Your task to perform on an android device: Clear the cart on bestbuy. Search for lg ultragear on bestbuy, select the first entry, and add it to the cart. Image 0: 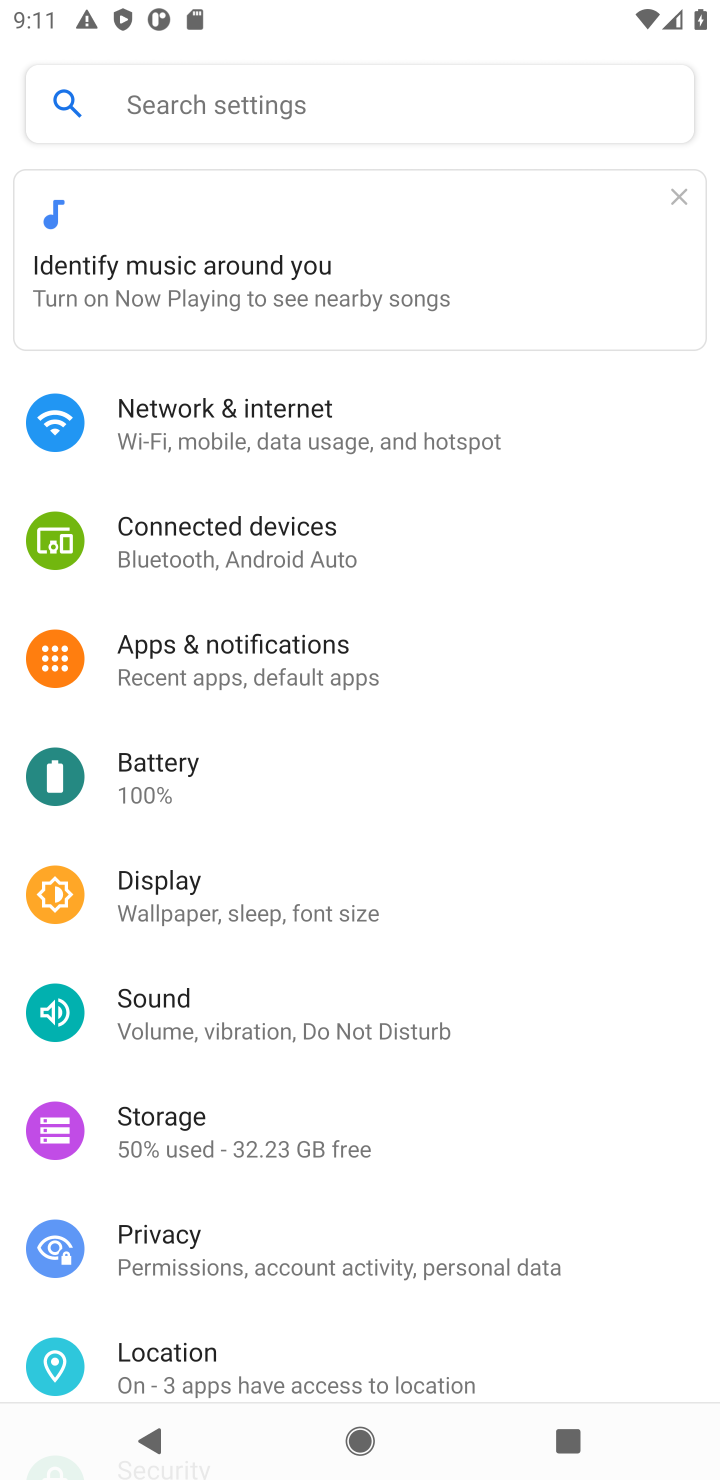
Step 0: press home button
Your task to perform on an android device: Clear the cart on bestbuy. Search for lg ultragear on bestbuy, select the first entry, and add it to the cart. Image 1: 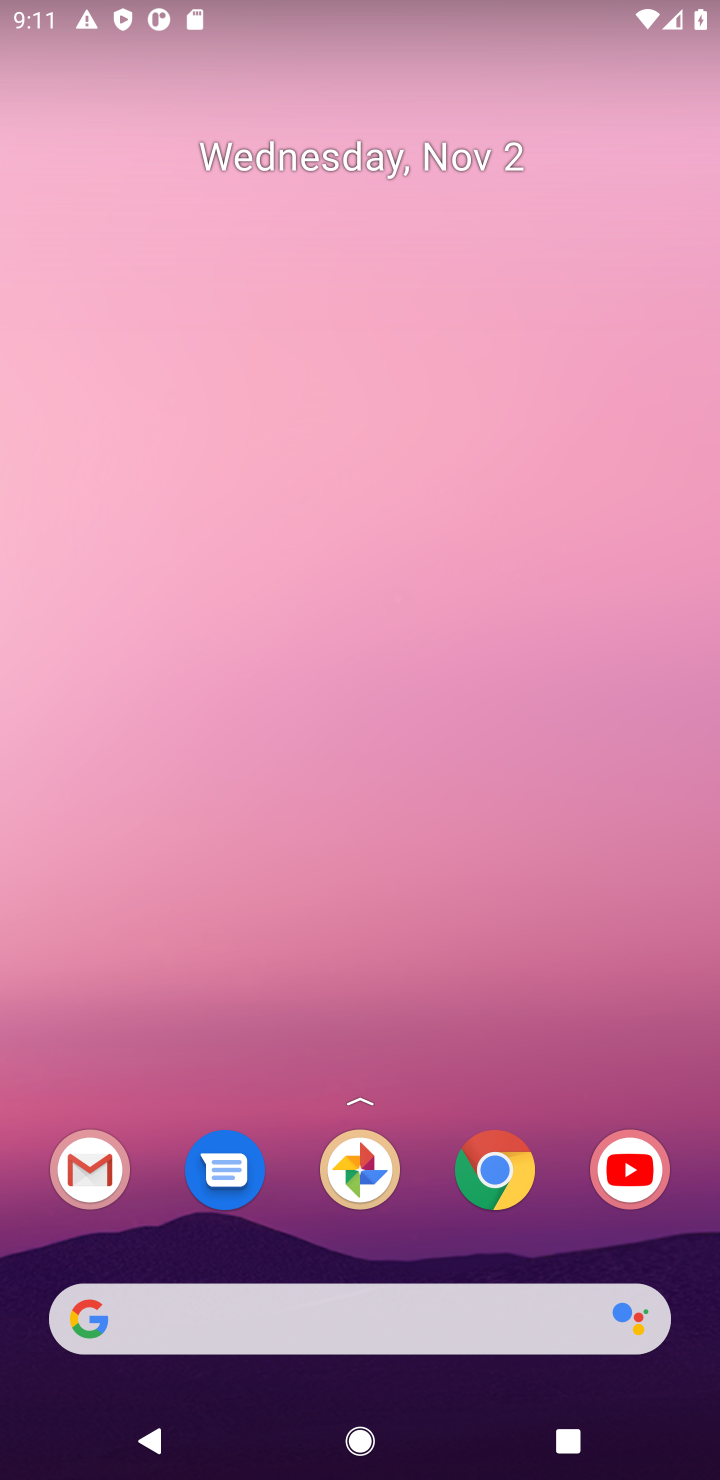
Step 1: click (518, 1163)
Your task to perform on an android device: Clear the cart on bestbuy. Search for lg ultragear on bestbuy, select the first entry, and add it to the cart. Image 2: 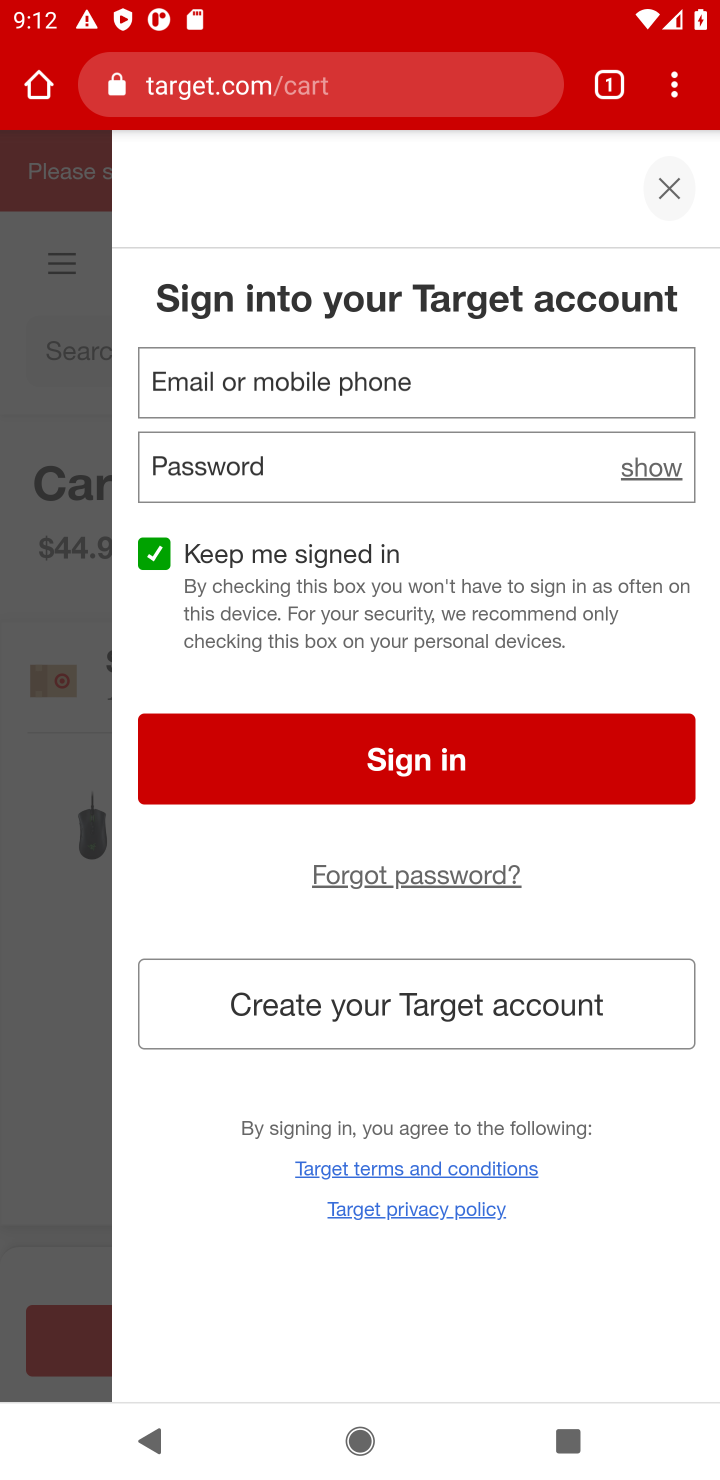
Step 2: click (295, 81)
Your task to perform on an android device: Clear the cart on bestbuy. Search for lg ultragear on bestbuy, select the first entry, and add it to the cart. Image 3: 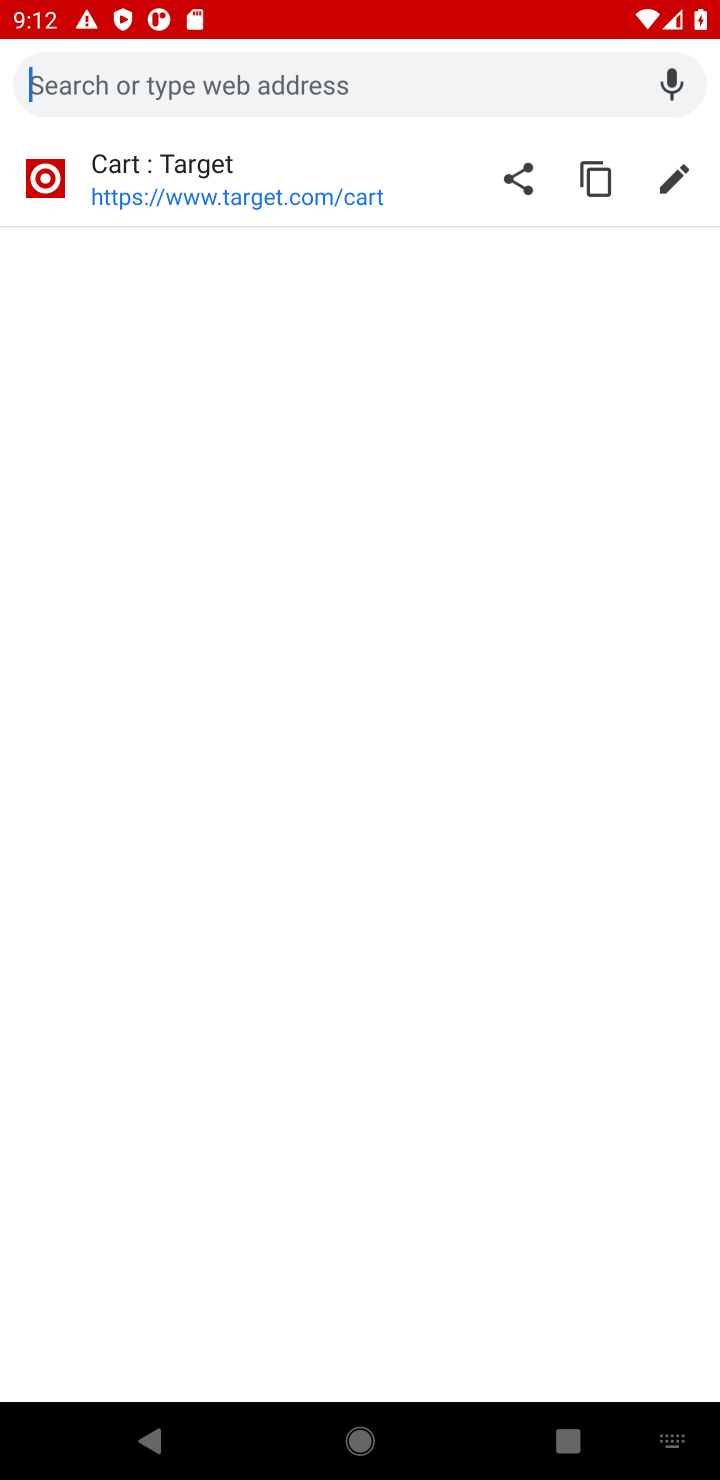
Step 3: type "bestbuy"
Your task to perform on an android device: Clear the cart on bestbuy. Search for lg ultragear on bestbuy, select the first entry, and add it to the cart. Image 4: 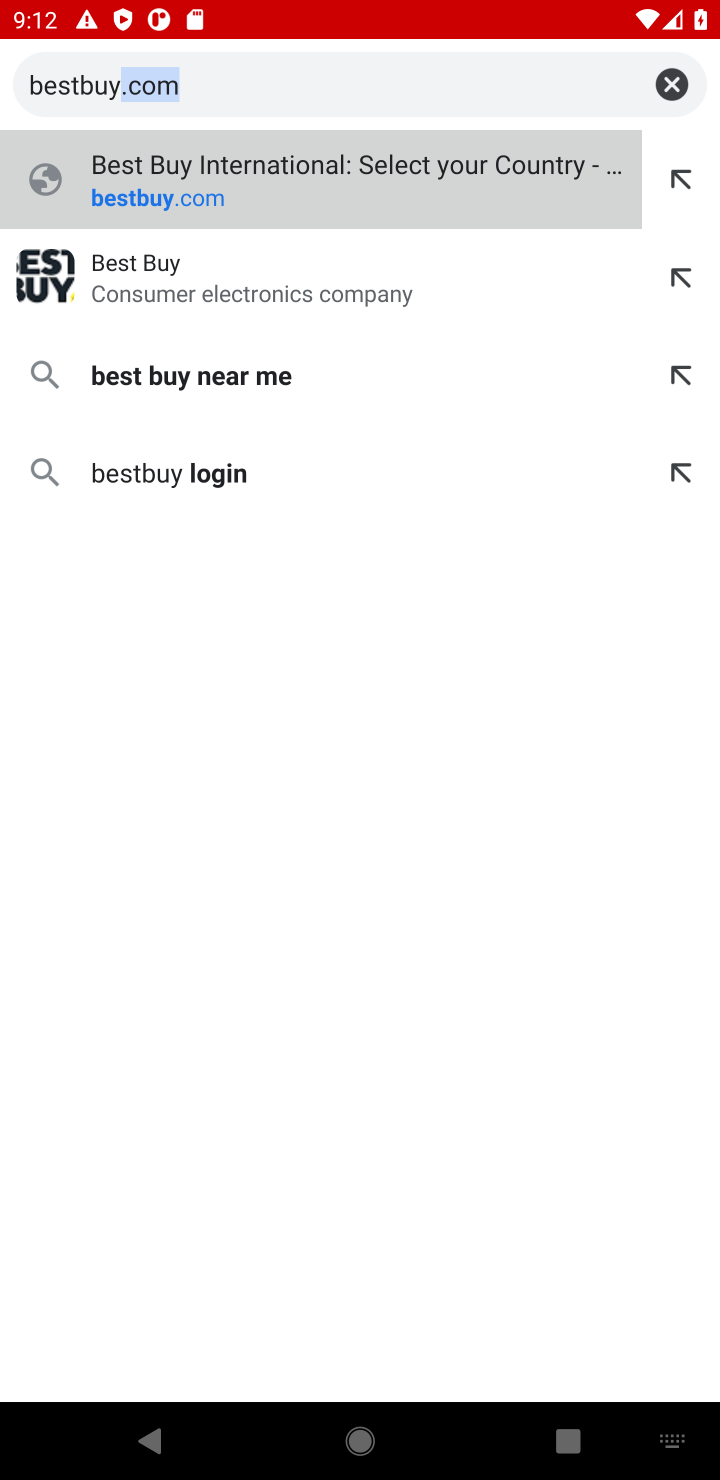
Step 4: press enter
Your task to perform on an android device: Clear the cart on bestbuy. Search for lg ultragear on bestbuy, select the first entry, and add it to the cart. Image 5: 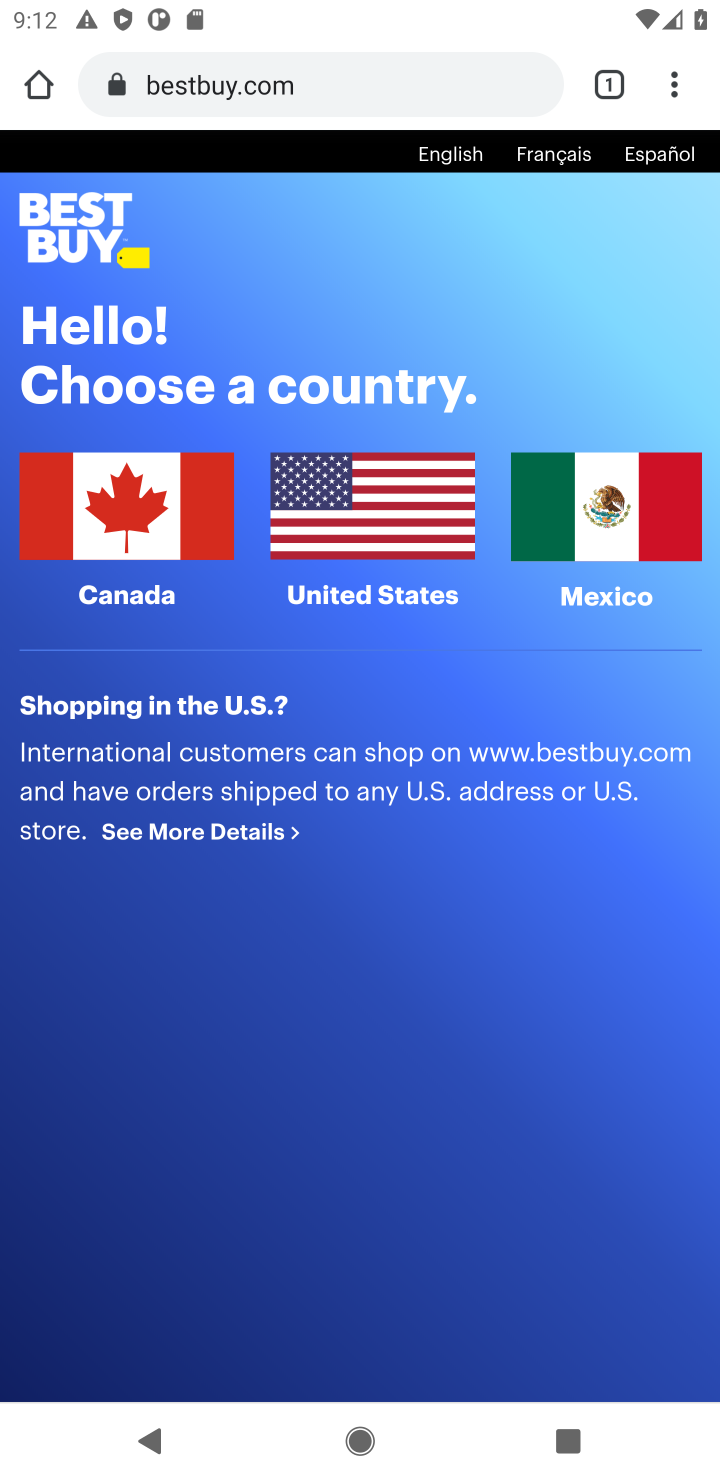
Step 5: click (419, 562)
Your task to perform on an android device: Clear the cart on bestbuy. Search for lg ultragear on bestbuy, select the first entry, and add it to the cart. Image 6: 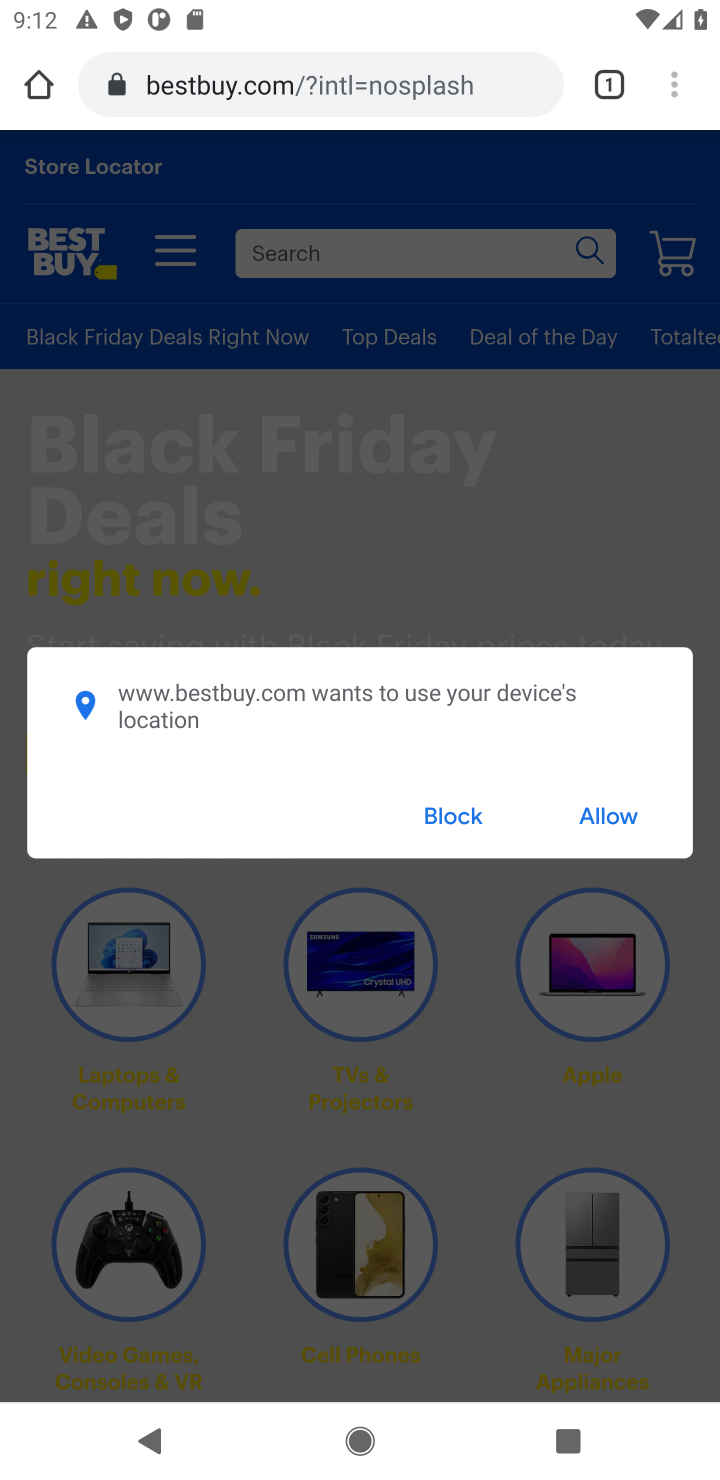
Step 6: click (626, 829)
Your task to perform on an android device: Clear the cart on bestbuy. Search for lg ultragear on bestbuy, select the first entry, and add it to the cart. Image 7: 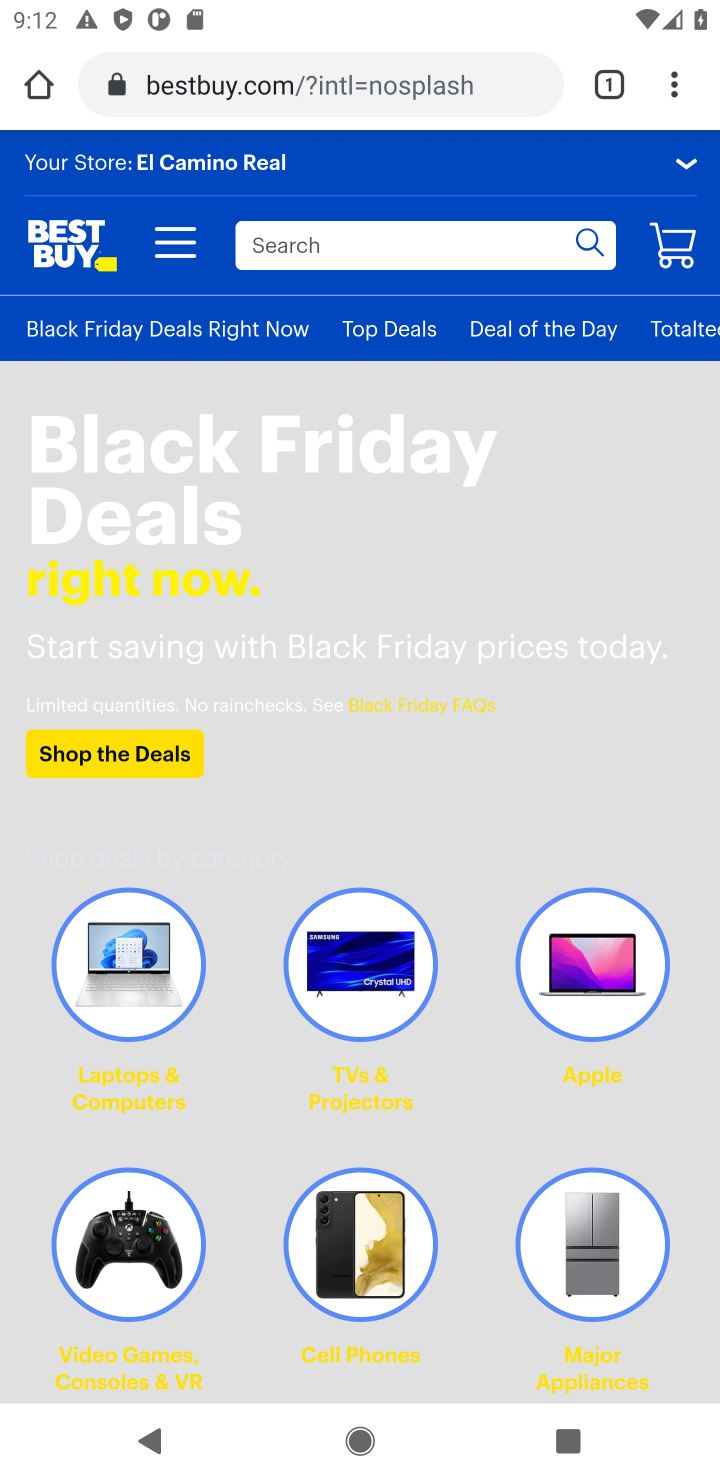
Step 7: click (674, 255)
Your task to perform on an android device: Clear the cart on bestbuy. Search for lg ultragear on bestbuy, select the first entry, and add it to the cart. Image 8: 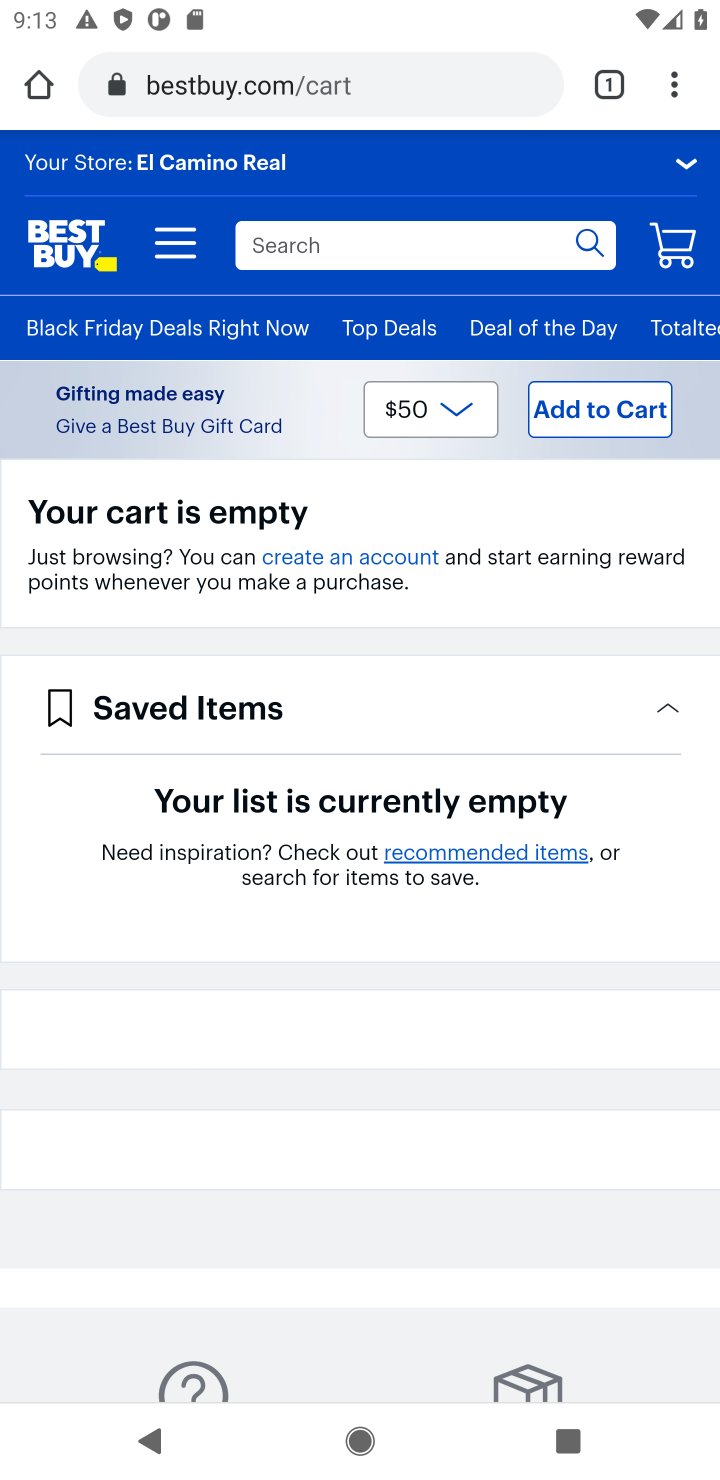
Step 8: click (275, 254)
Your task to perform on an android device: Clear the cart on bestbuy. Search for lg ultragear on bestbuy, select the first entry, and add it to the cart. Image 9: 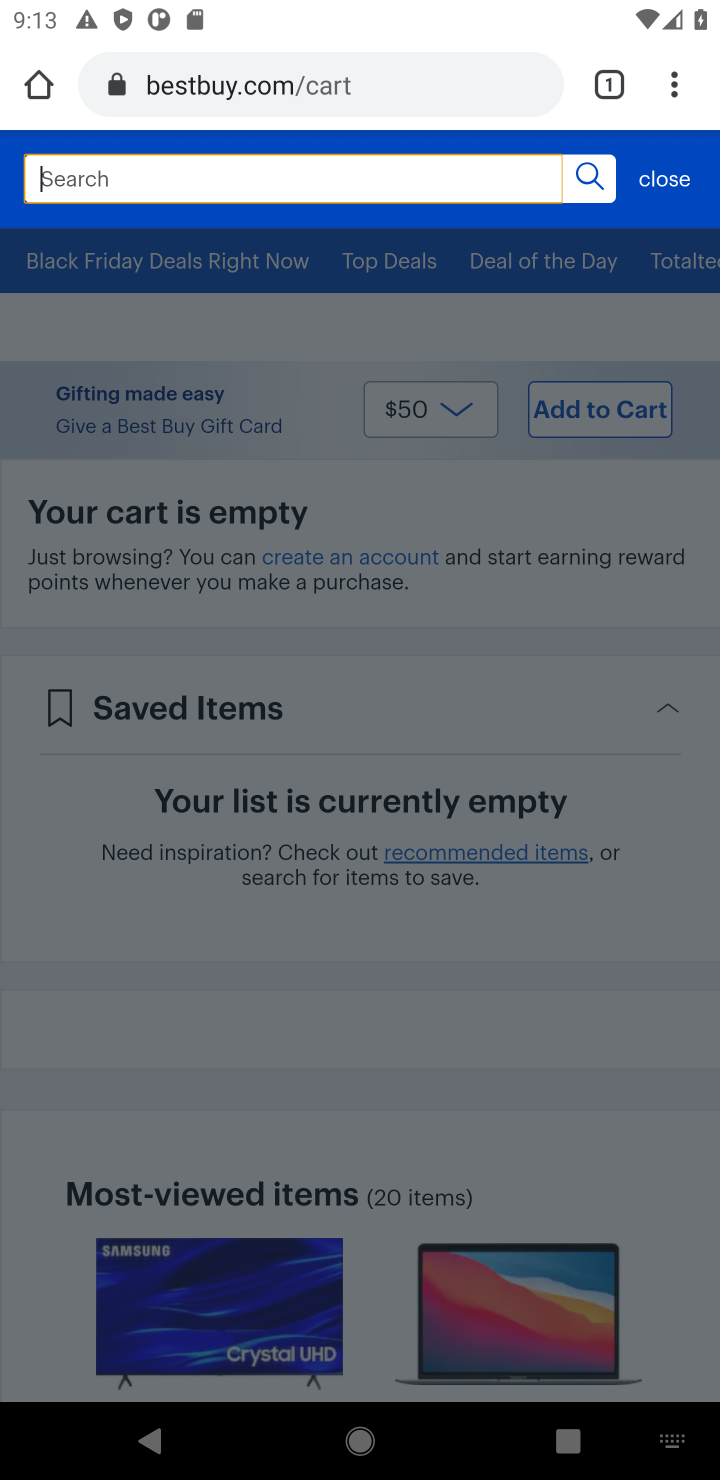
Step 9: type "lg ultragear"
Your task to perform on an android device: Clear the cart on bestbuy. Search for lg ultragear on bestbuy, select the first entry, and add it to the cart. Image 10: 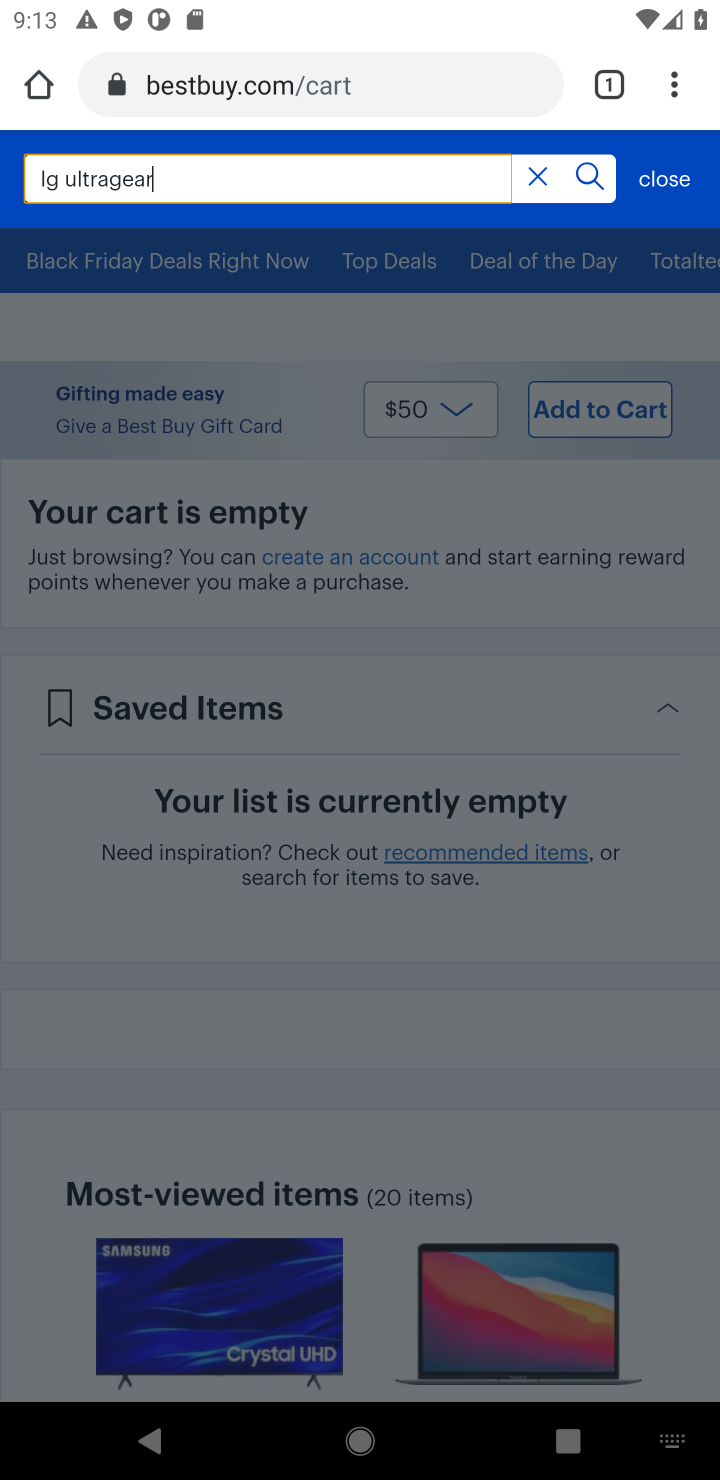
Step 10: type ""
Your task to perform on an android device: Clear the cart on bestbuy. Search for lg ultragear on bestbuy, select the first entry, and add it to the cart. Image 11: 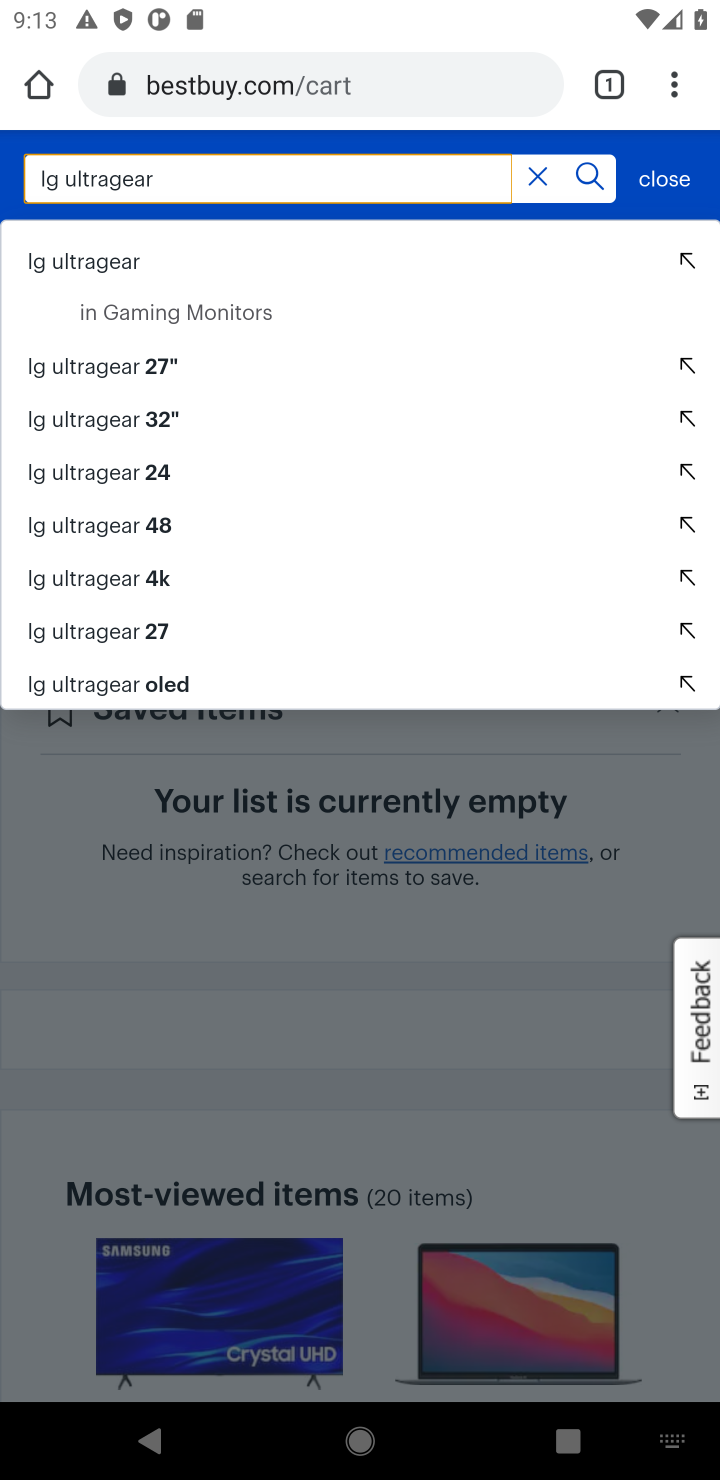
Step 11: press enter
Your task to perform on an android device: Clear the cart on bestbuy. Search for lg ultragear on bestbuy, select the first entry, and add it to the cart. Image 12: 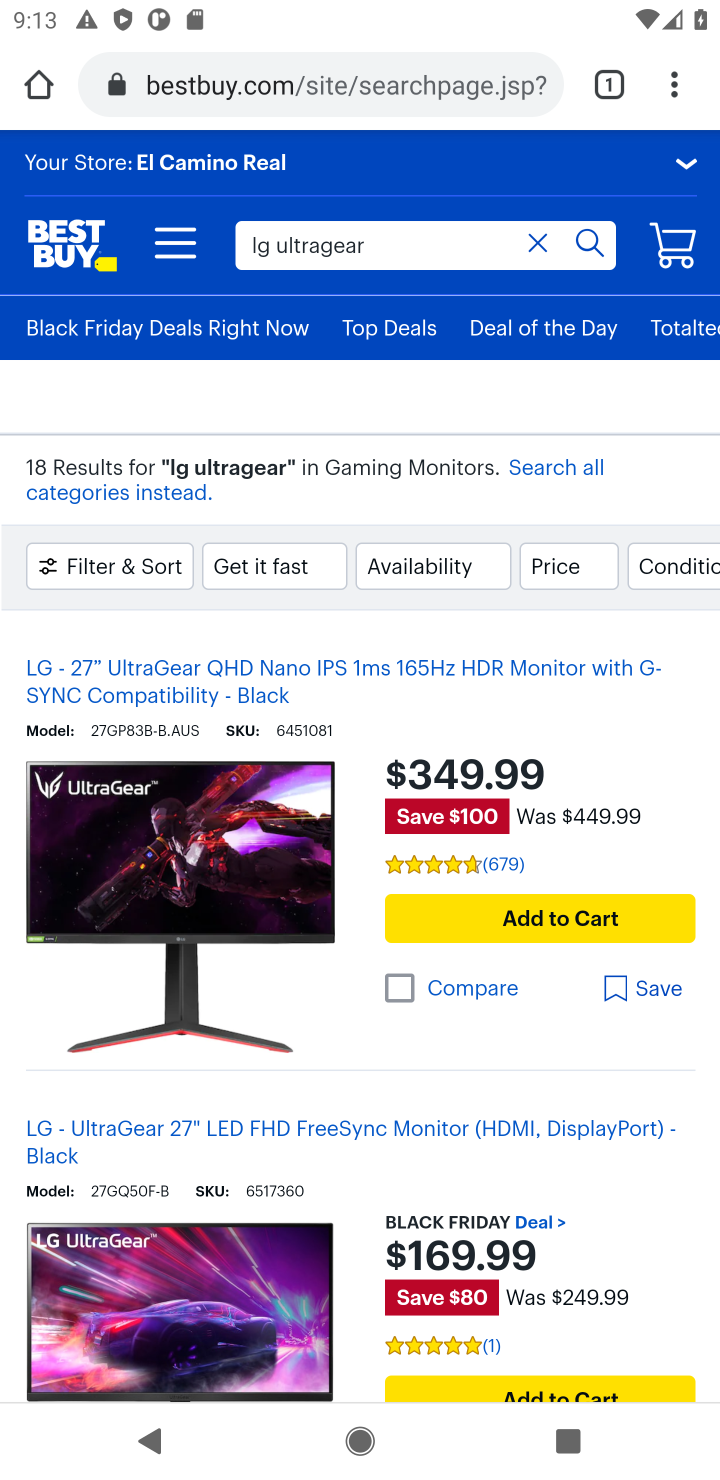
Step 12: click (187, 668)
Your task to perform on an android device: Clear the cart on bestbuy. Search for lg ultragear on bestbuy, select the first entry, and add it to the cart. Image 13: 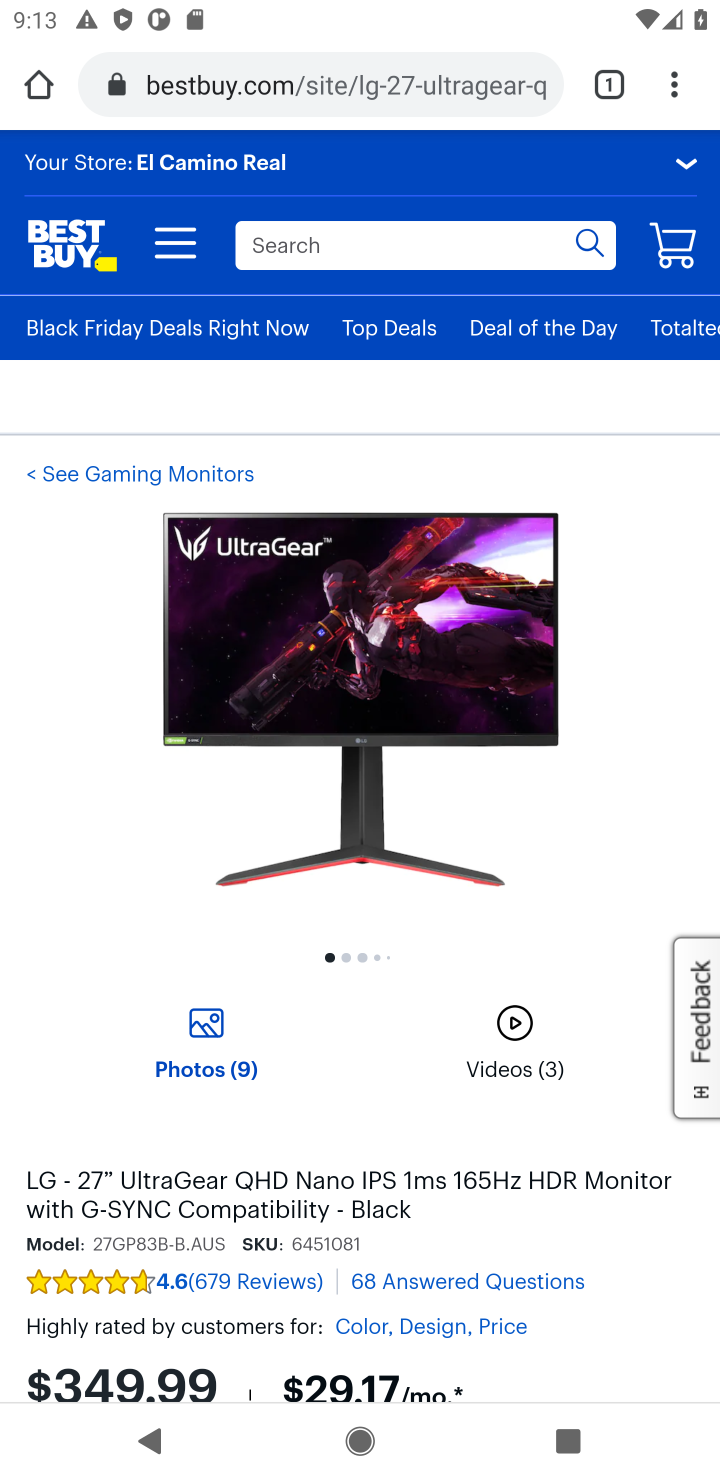
Step 13: drag from (302, 852) to (343, 458)
Your task to perform on an android device: Clear the cart on bestbuy. Search for lg ultragear on bestbuy, select the first entry, and add it to the cart. Image 14: 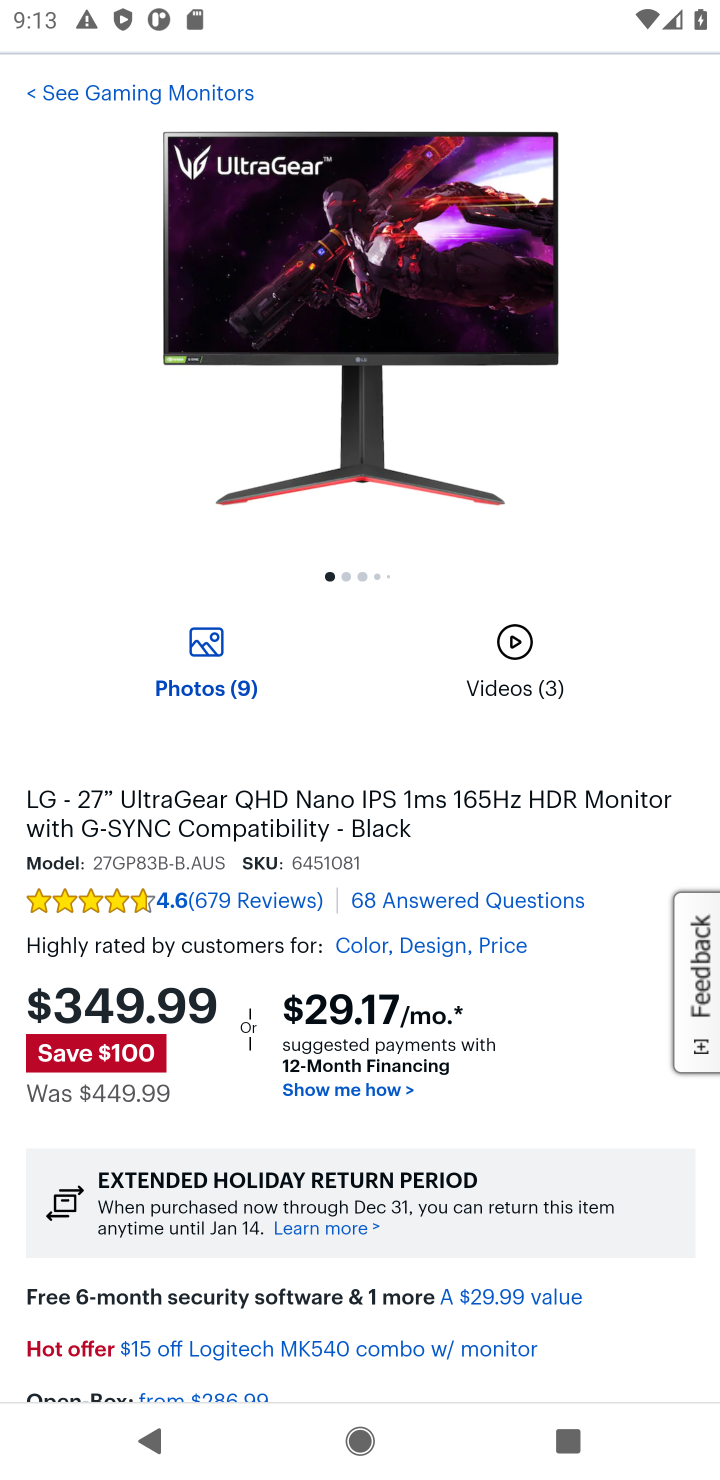
Step 14: drag from (391, 1107) to (441, 275)
Your task to perform on an android device: Clear the cart on bestbuy. Search for lg ultragear on bestbuy, select the first entry, and add it to the cart. Image 15: 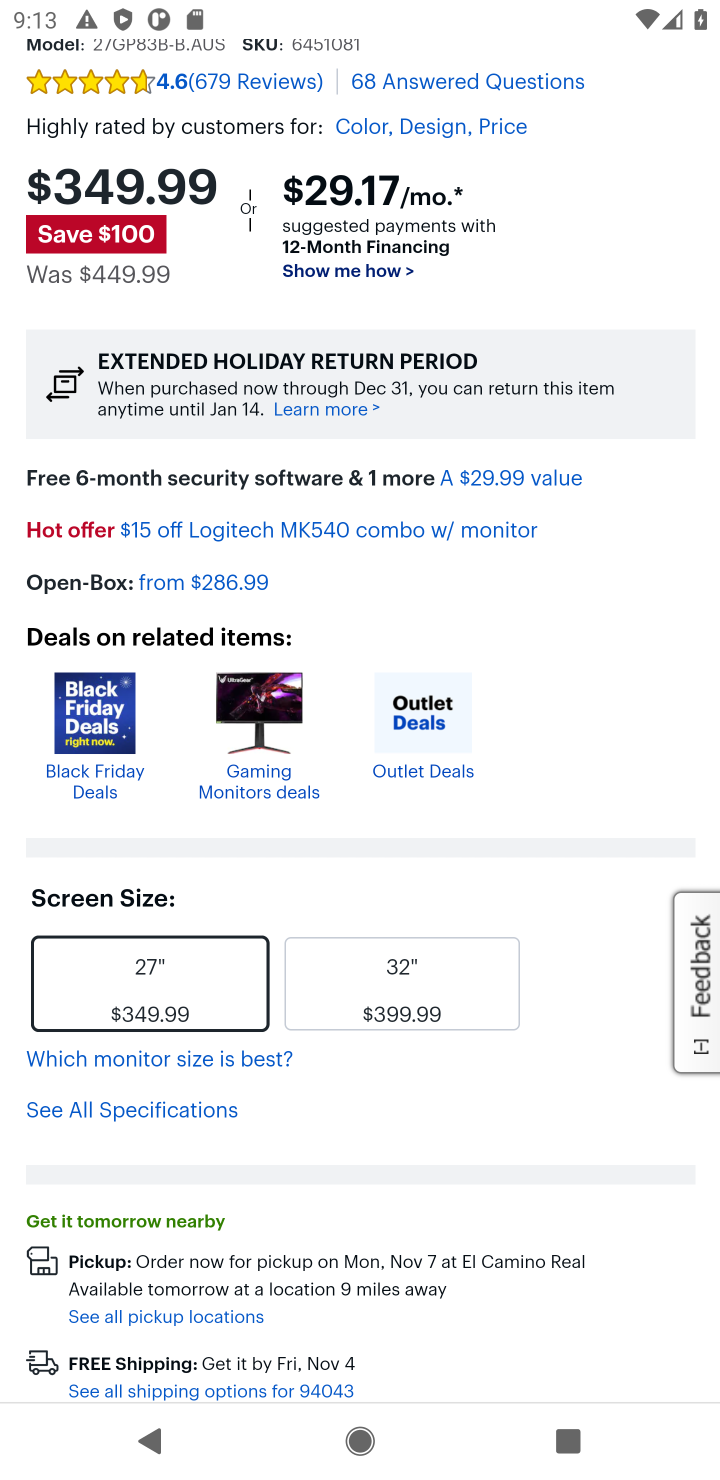
Step 15: drag from (432, 1197) to (417, 413)
Your task to perform on an android device: Clear the cart on bestbuy. Search for lg ultragear on bestbuy, select the first entry, and add it to the cart. Image 16: 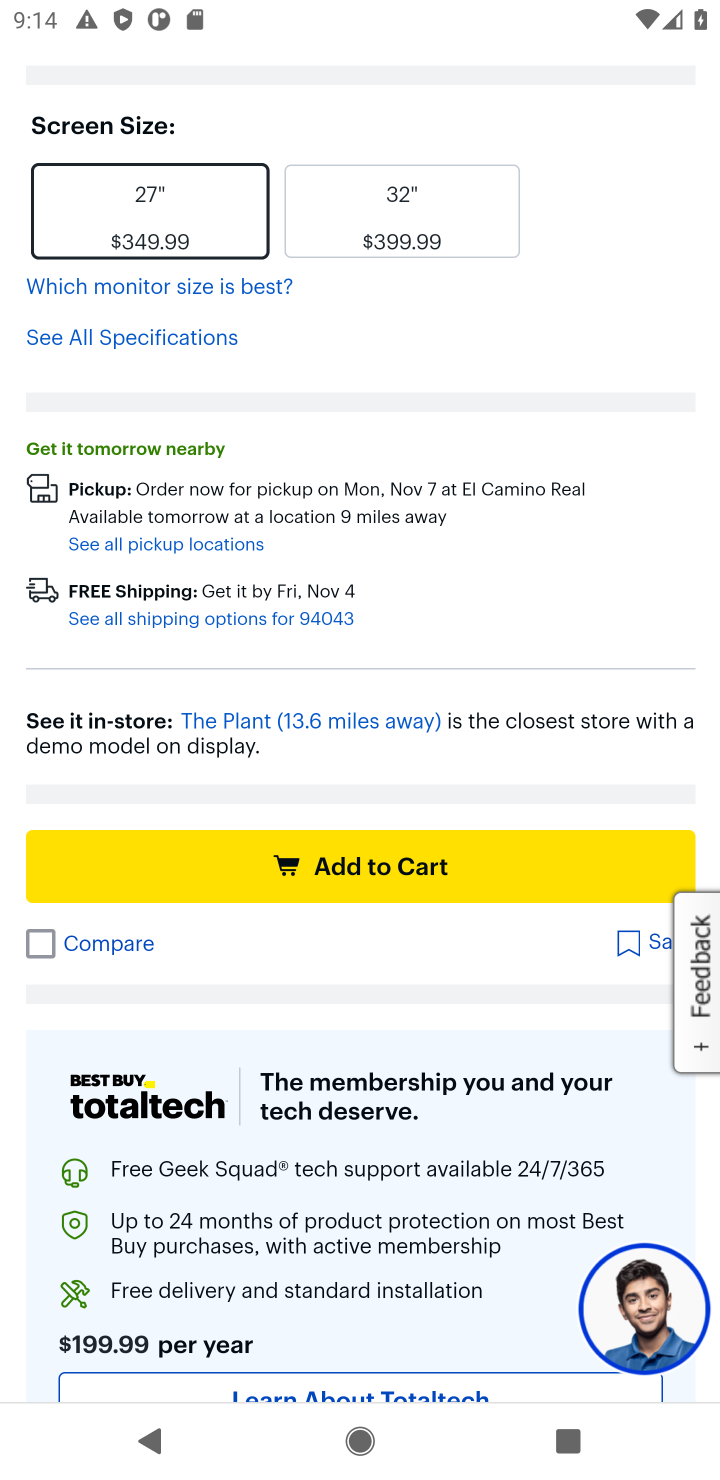
Step 16: click (380, 877)
Your task to perform on an android device: Clear the cart on bestbuy. Search for lg ultragear on bestbuy, select the first entry, and add it to the cart. Image 17: 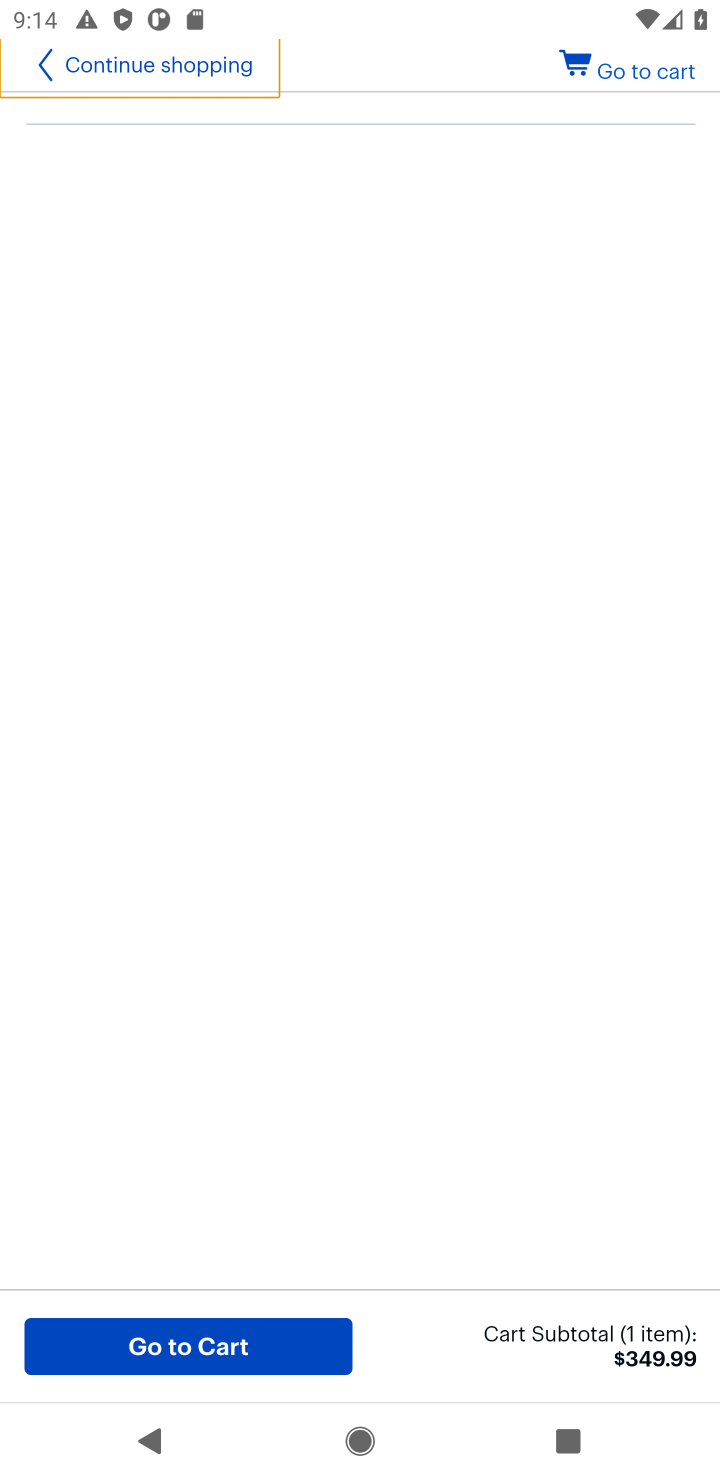
Step 17: click (264, 1352)
Your task to perform on an android device: Clear the cart on bestbuy. Search for lg ultragear on bestbuy, select the first entry, and add it to the cart. Image 18: 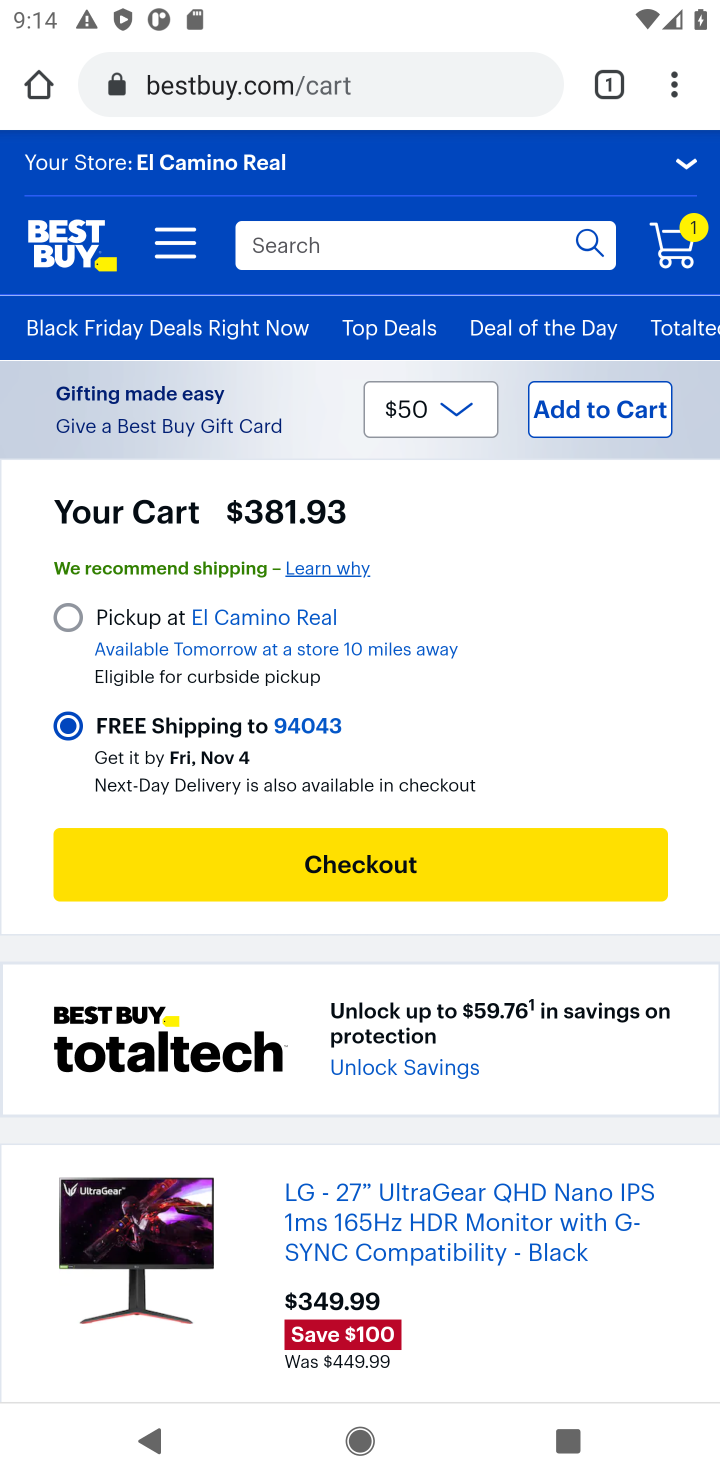
Step 18: click (363, 858)
Your task to perform on an android device: Clear the cart on bestbuy. Search for lg ultragear on bestbuy, select the first entry, and add it to the cart. Image 19: 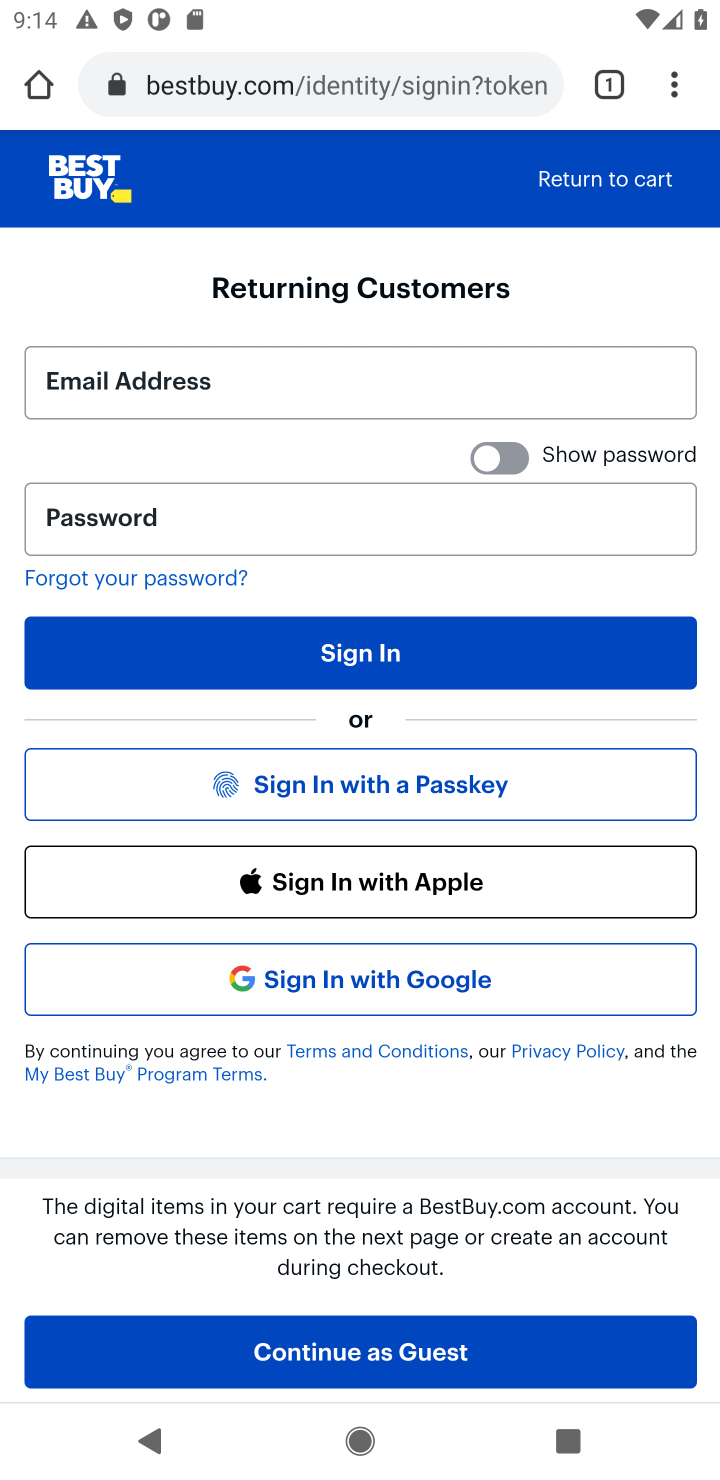
Step 19: task complete